Your task to perform on an android device: Open the phone app and click the voicemail tab. Image 0: 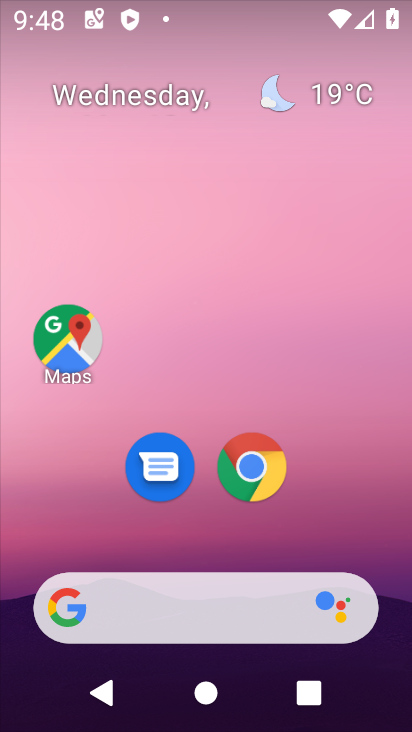
Step 0: drag from (250, 548) to (182, 66)
Your task to perform on an android device: Open the phone app and click the voicemail tab. Image 1: 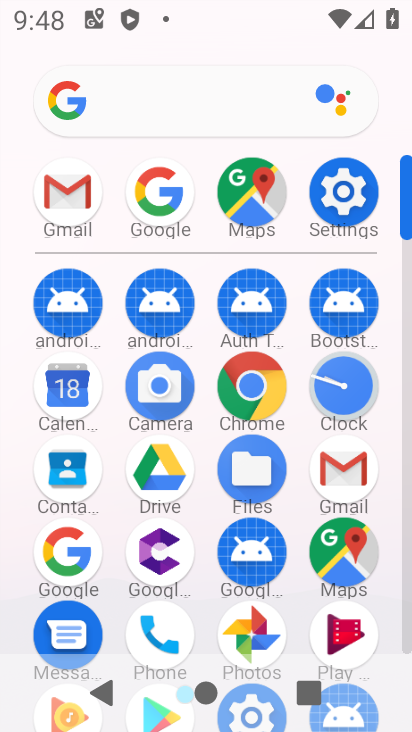
Step 1: click (163, 641)
Your task to perform on an android device: Open the phone app and click the voicemail tab. Image 2: 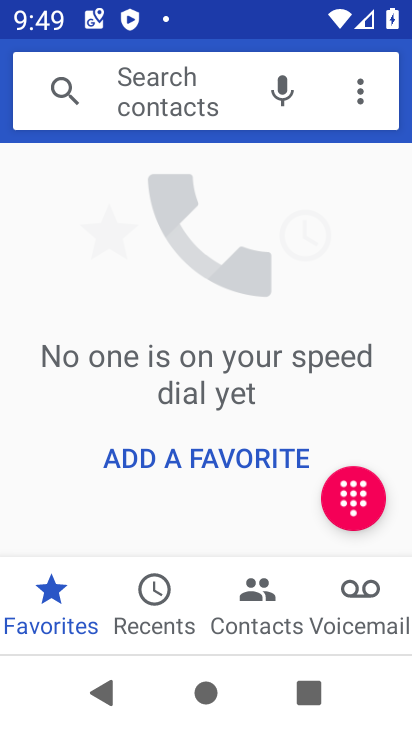
Step 2: click (371, 613)
Your task to perform on an android device: Open the phone app and click the voicemail tab. Image 3: 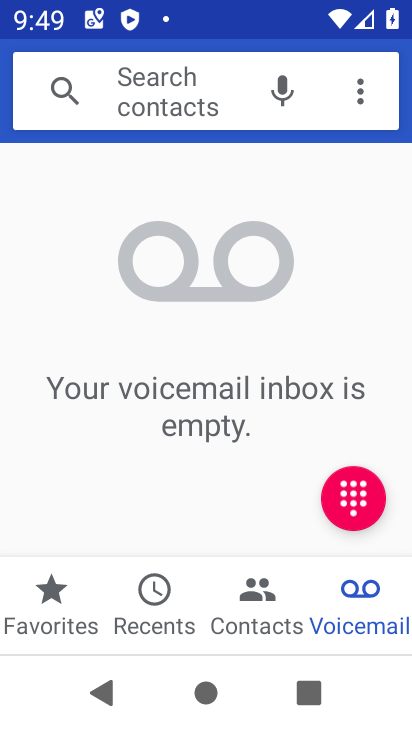
Step 3: task complete